Your task to perform on an android device: read, delete, or share a saved page in the chrome app Image 0: 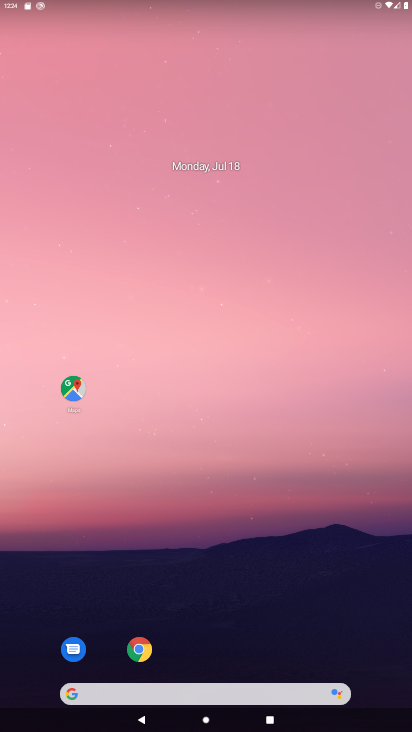
Step 0: click (140, 644)
Your task to perform on an android device: read, delete, or share a saved page in the chrome app Image 1: 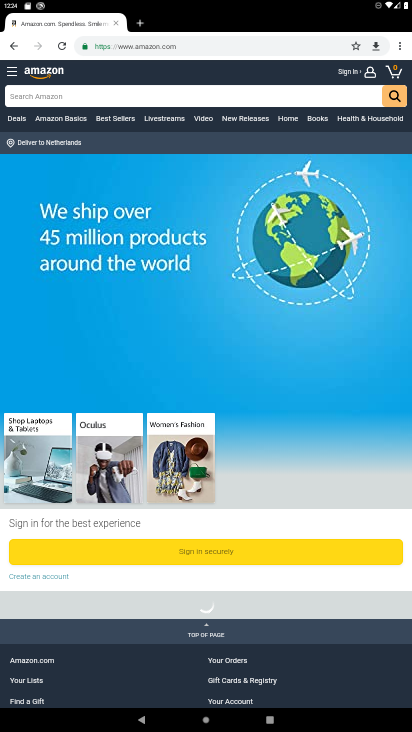
Step 1: click (401, 52)
Your task to perform on an android device: read, delete, or share a saved page in the chrome app Image 2: 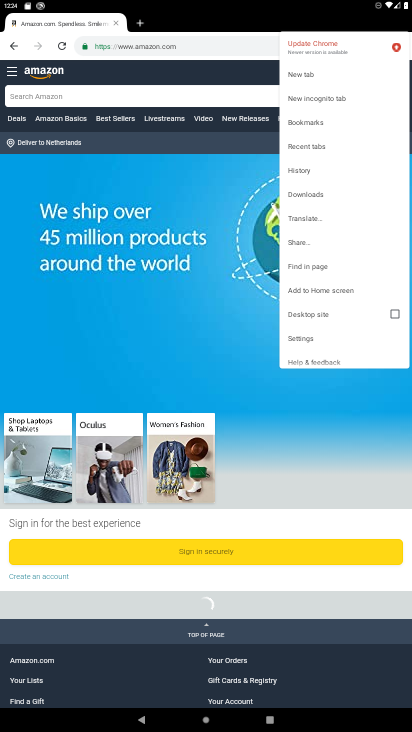
Step 2: click (321, 206)
Your task to perform on an android device: read, delete, or share a saved page in the chrome app Image 3: 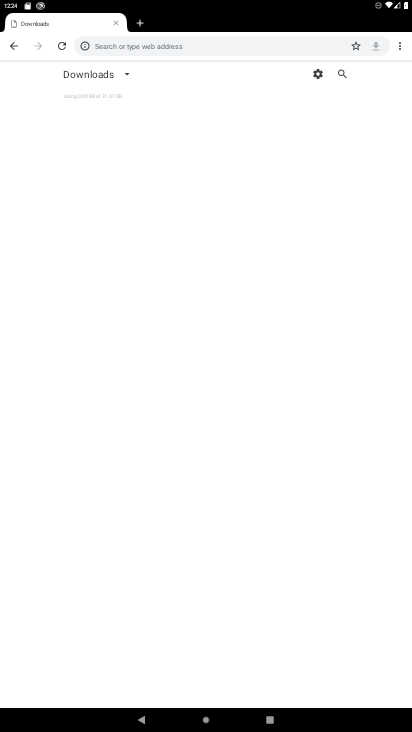
Step 3: task complete